Your task to perform on an android device: Is it going to rain tomorrow? Image 0: 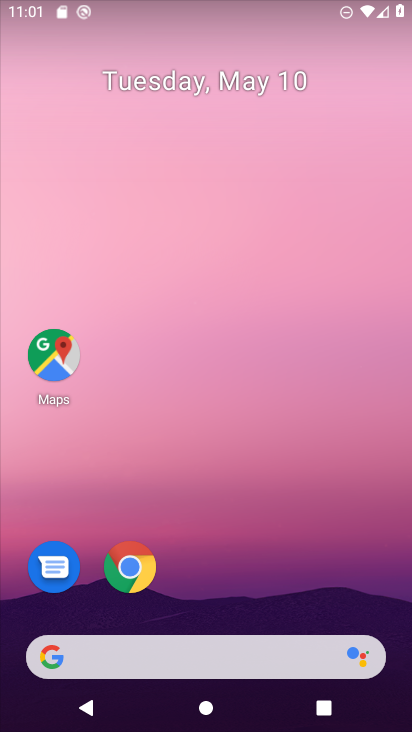
Step 0: drag from (225, 596) to (231, 151)
Your task to perform on an android device: Is it going to rain tomorrow? Image 1: 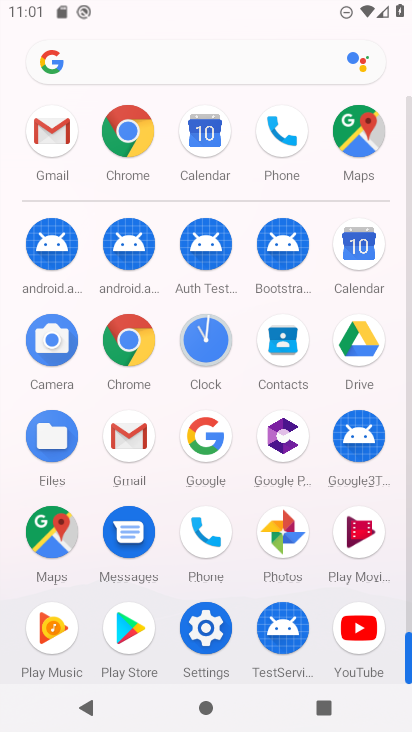
Step 1: click (195, 438)
Your task to perform on an android device: Is it going to rain tomorrow? Image 2: 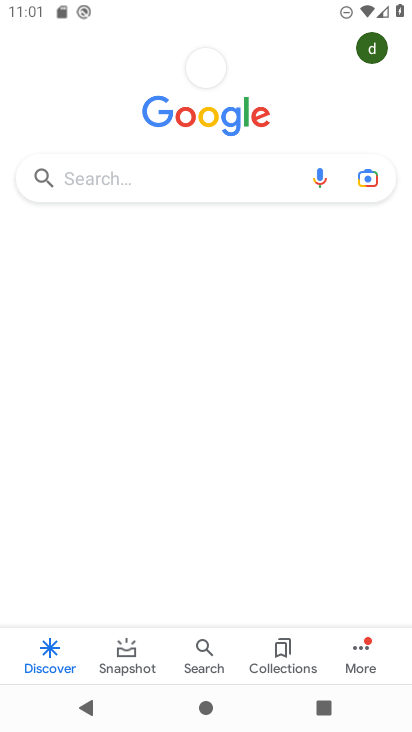
Step 2: click (151, 185)
Your task to perform on an android device: Is it going to rain tomorrow? Image 3: 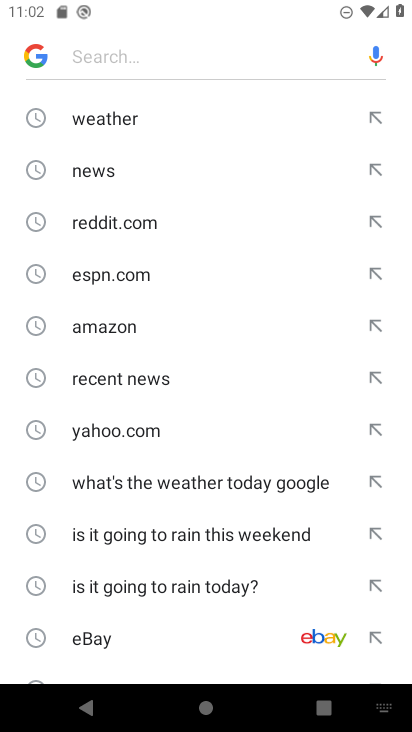
Step 3: type "is it going to rain tomorrow?"
Your task to perform on an android device: Is it going to rain tomorrow? Image 4: 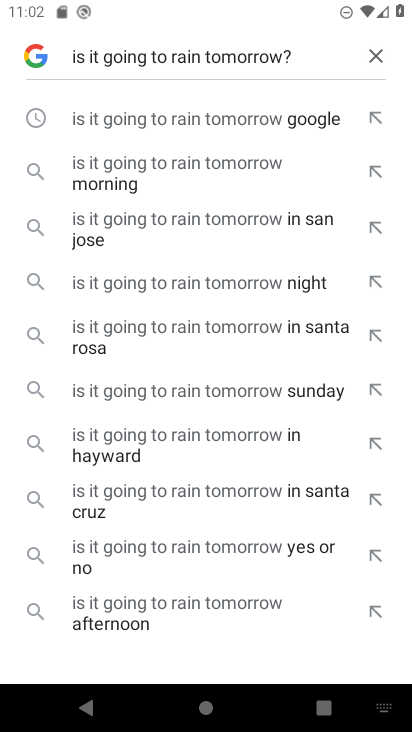
Step 4: click (263, 125)
Your task to perform on an android device: Is it going to rain tomorrow? Image 5: 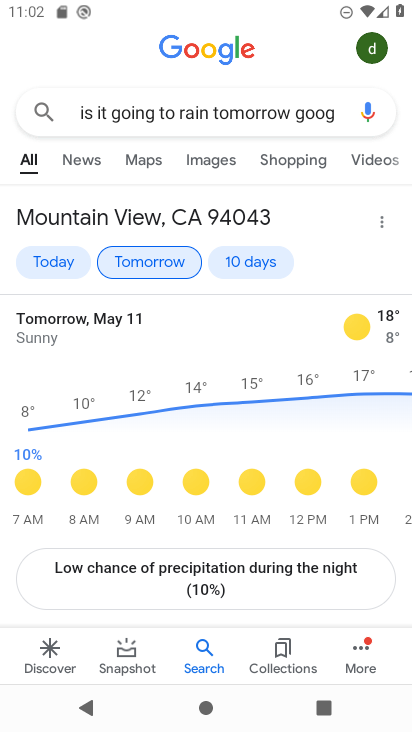
Step 5: task complete